Your task to perform on an android device: Show me productivity apps on the Play Store Image 0: 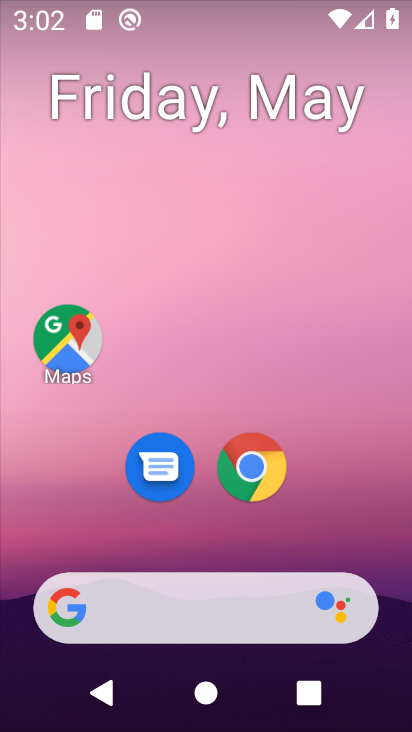
Step 0: drag from (328, 436) to (236, 40)
Your task to perform on an android device: Show me productivity apps on the Play Store Image 1: 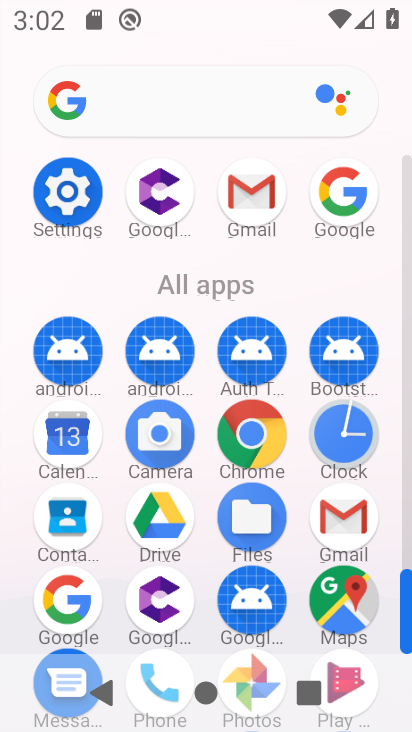
Step 1: drag from (216, 470) to (178, 197)
Your task to perform on an android device: Show me productivity apps on the Play Store Image 2: 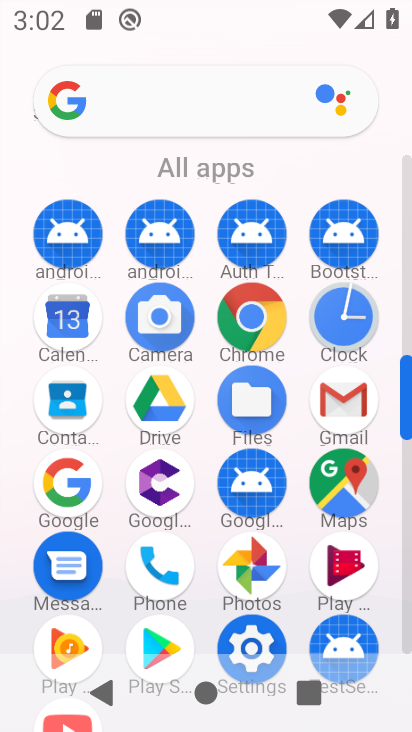
Step 2: drag from (204, 582) to (203, 233)
Your task to perform on an android device: Show me productivity apps on the Play Store Image 3: 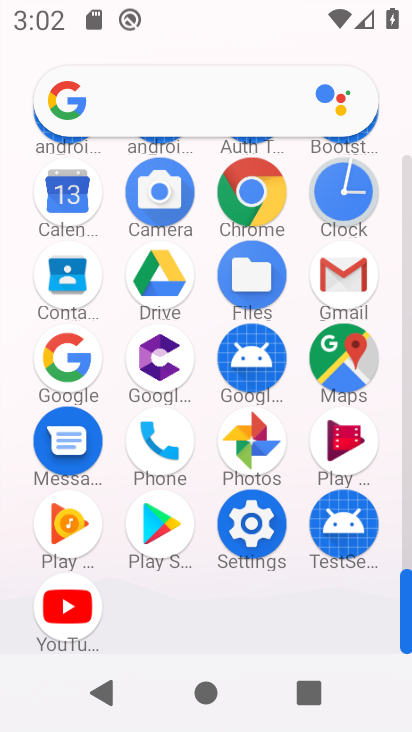
Step 3: click (157, 533)
Your task to perform on an android device: Show me productivity apps on the Play Store Image 4: 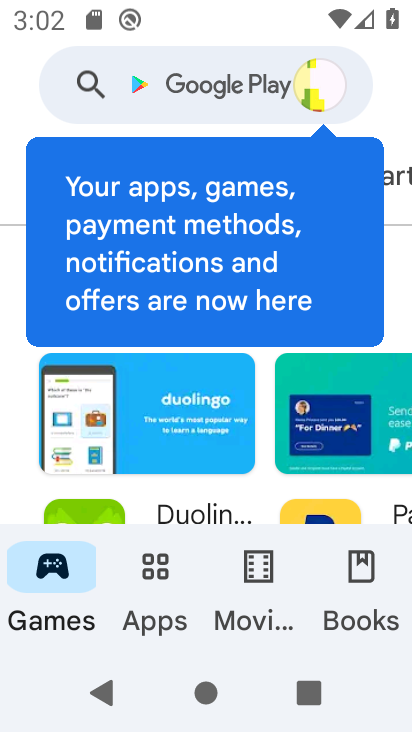
Step 4: click (163, 576)
Your task to perform on an android device: Show me productivity apps on the Play Store Image 5: 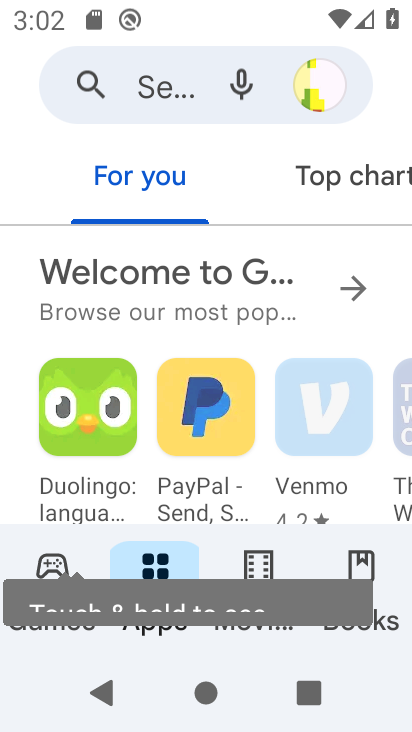
Step 5: click (208, 86)
Your task to perform on an android device: Show me productivity apps on the Play Store Image 6: 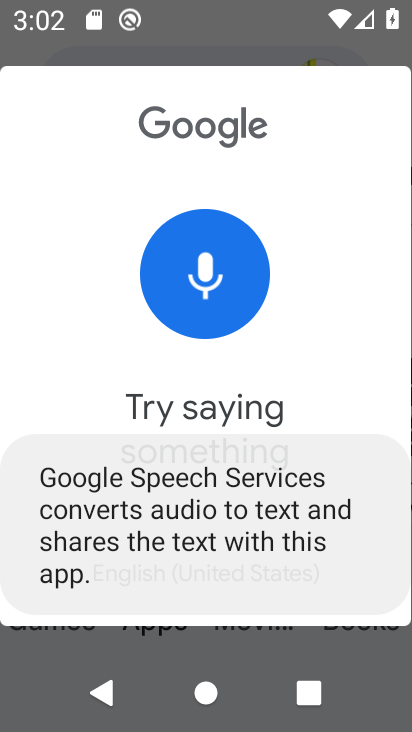
Step 6: click (273, 658)
Your task to perform on an android device: Show me productivity apps on the Play Store Image 7: 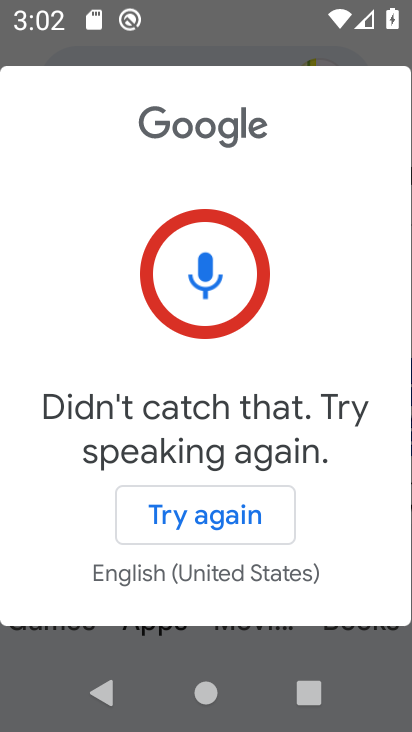
Step 7: press back button
Your task to perform on an android device: Show me productivity apps on the Play Store Image 8: 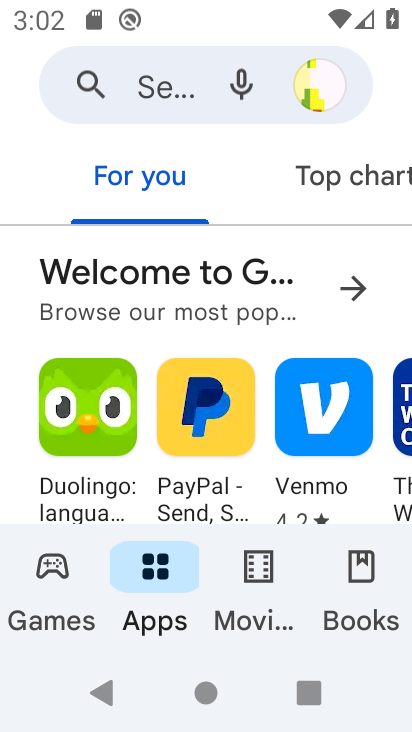
Step 8: click (166, 84)
Your task to perform on an android device: Show me productivity apps on the Play Store Image 9: 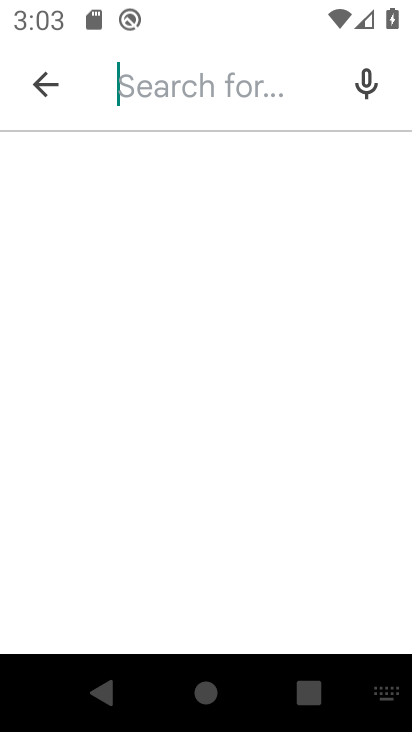
Step 9: type "productivity apps"
Your task to perform on an android device: Show me productivity apps on the Play Store Image 10: 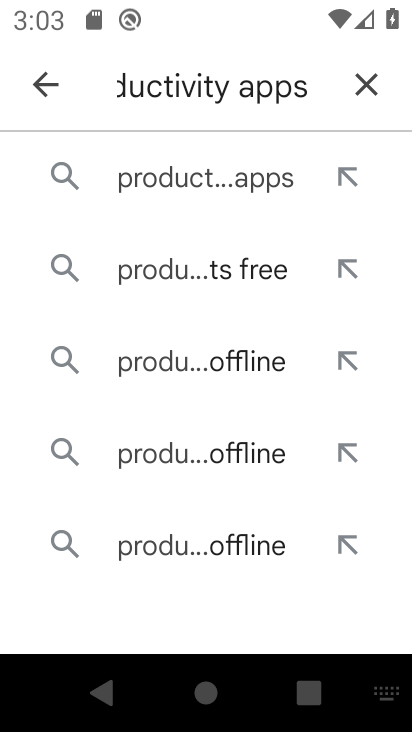
Step 10: click (187, 189)
Your task to perform on an android device: Show me productivity apps on the Play Store Image 11: 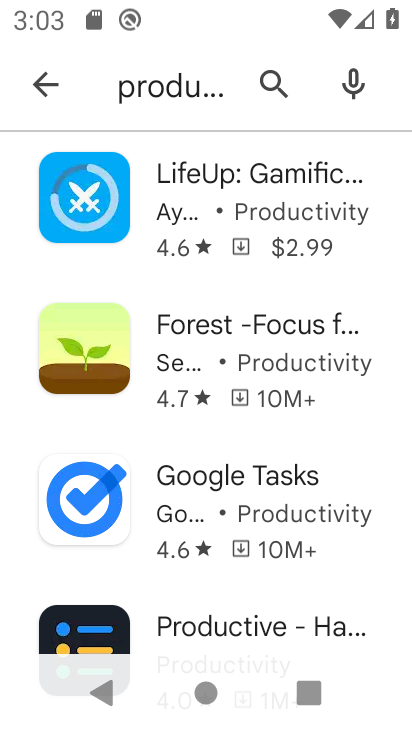
Step 11: task complete